Your task to perform on an android device: Go to Yahoo.com Image 0: 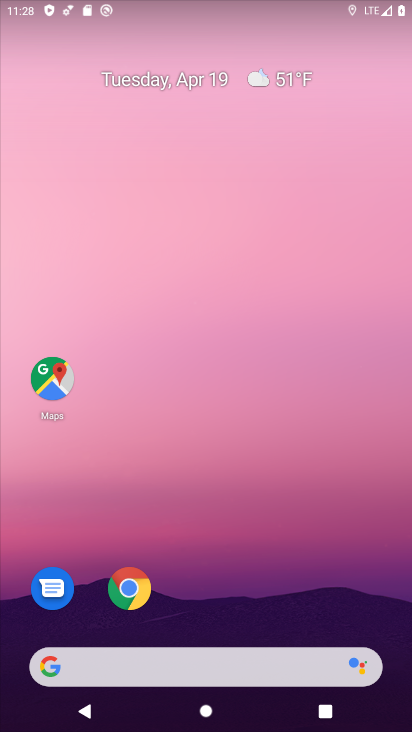
Step 0: drag from (208, 618) to (209, 86)
Your task to perform on an android device: Go to Yahoo.com Image 1: 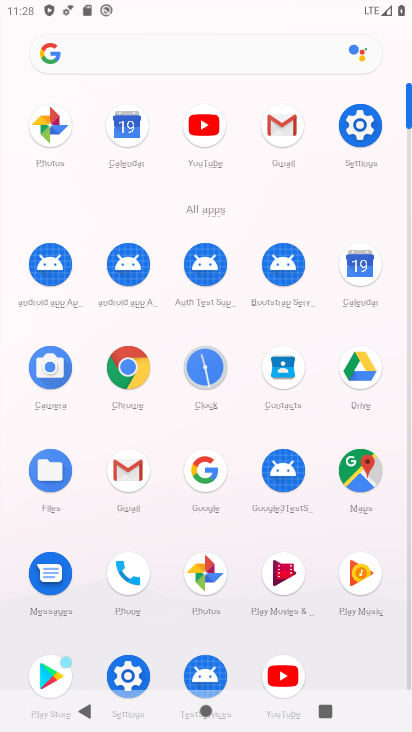
Step 1: click (125, 358)
Your task to perform on an android device: Go to Yahoo.com Image 2: 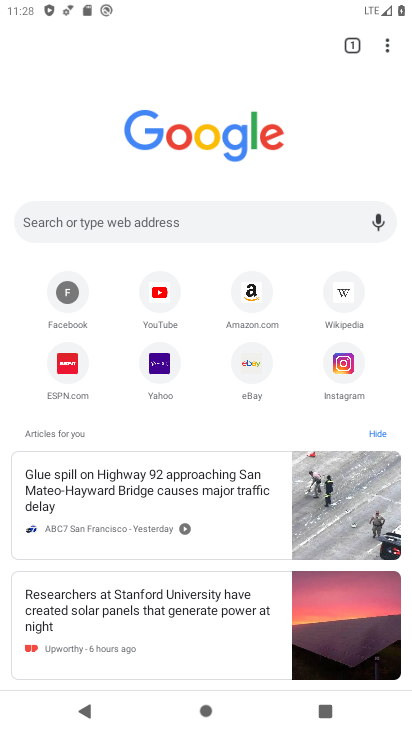
Step 2: click (160, 362)
Your task to perform on an android device: Go to Yahoo.com Image 3: 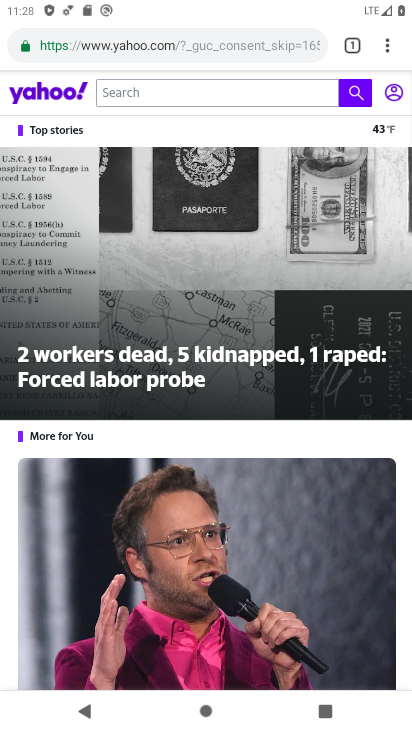
Step 3: task complete